Your task to perform on an android device: open app "AliExpress" (install if not already installed), go to login, and select forgot password Image 0: 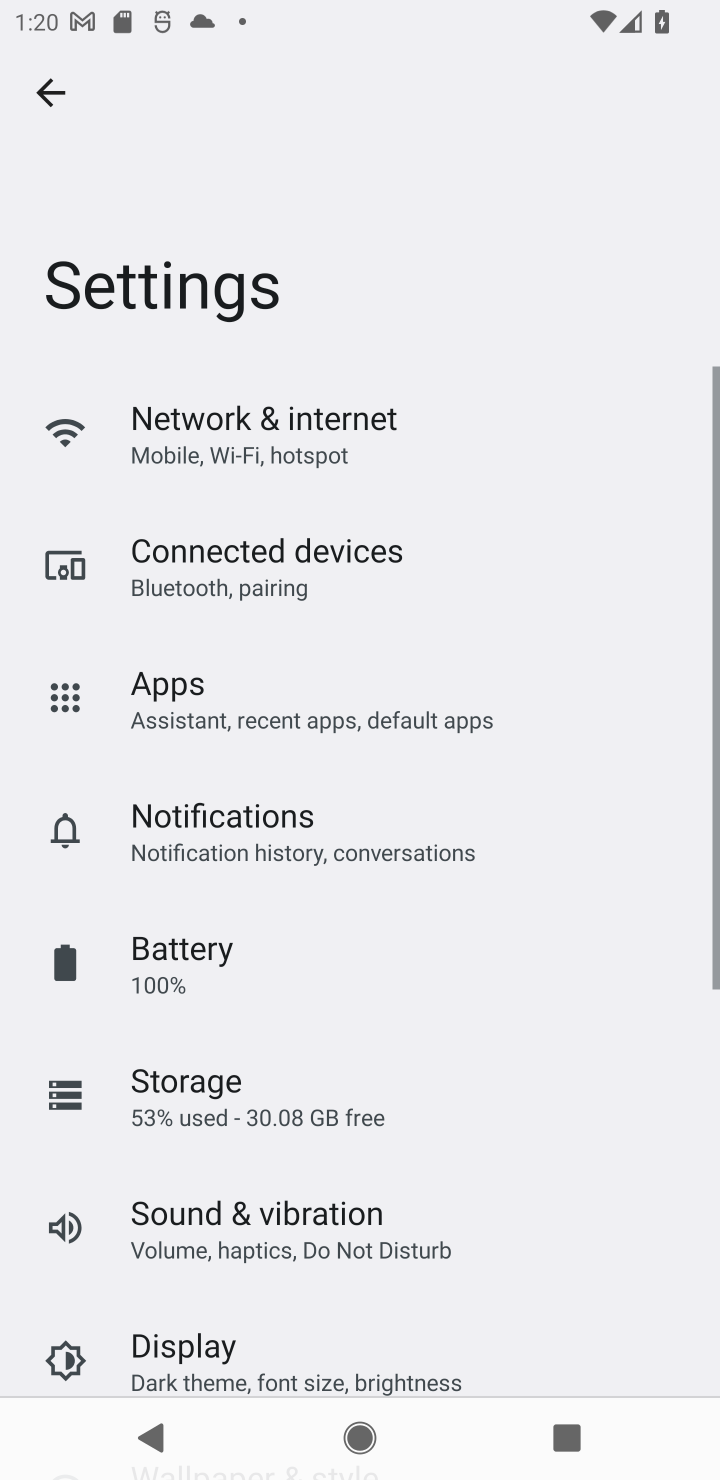
Step 0: press home button
Your task to perform on an android device: open app "AliExpress" (install if not already installed), go to login, and select forgot password Image 1: 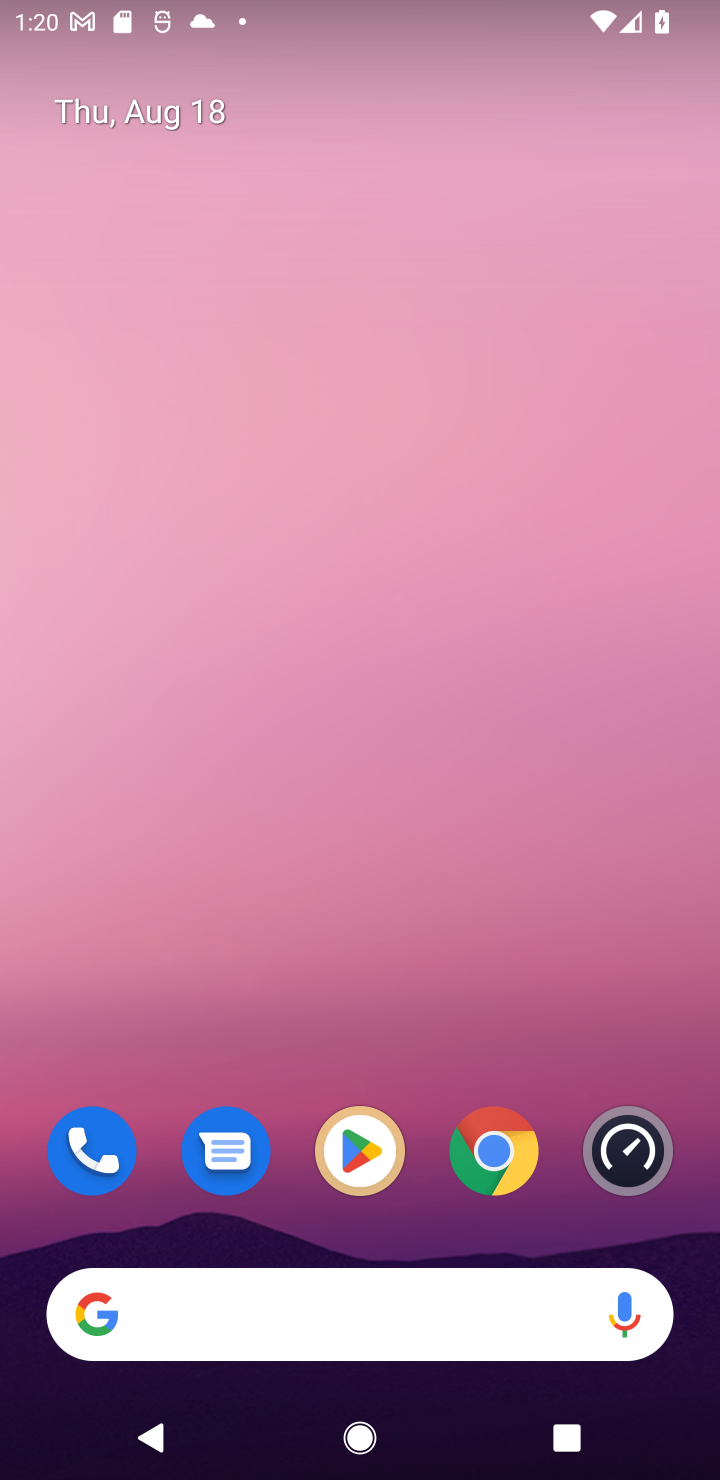
Step 1: drag from (343, 1179) to (337, 473)
Your task to perform on an android device: open app "AliExpress" (install if not already installed), go to login, and select forgot password Image 2: 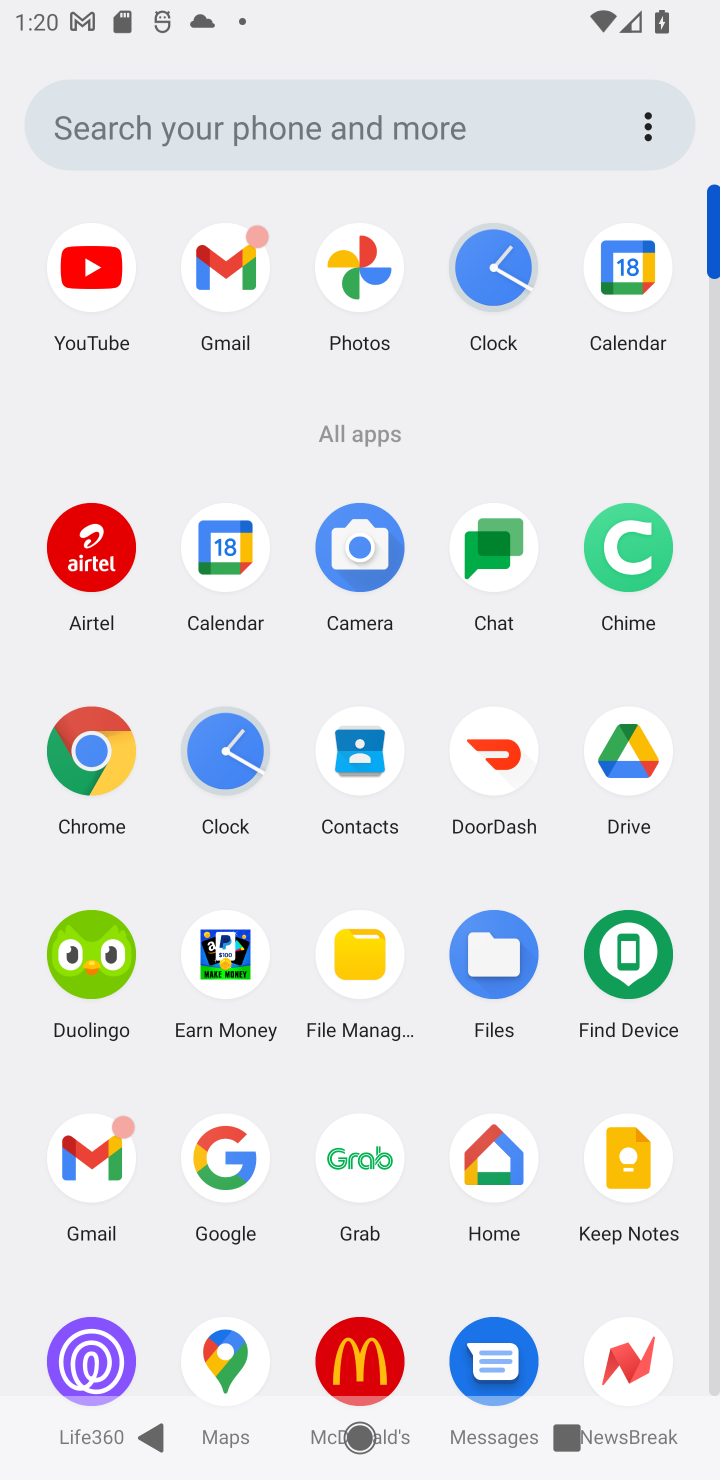
Step 2: drag from (405, 1136) to (376, 618)
Your task to perform on an android device: open app "AliExpress" (install if not already installed), go to login, and select forgot password Image 3: 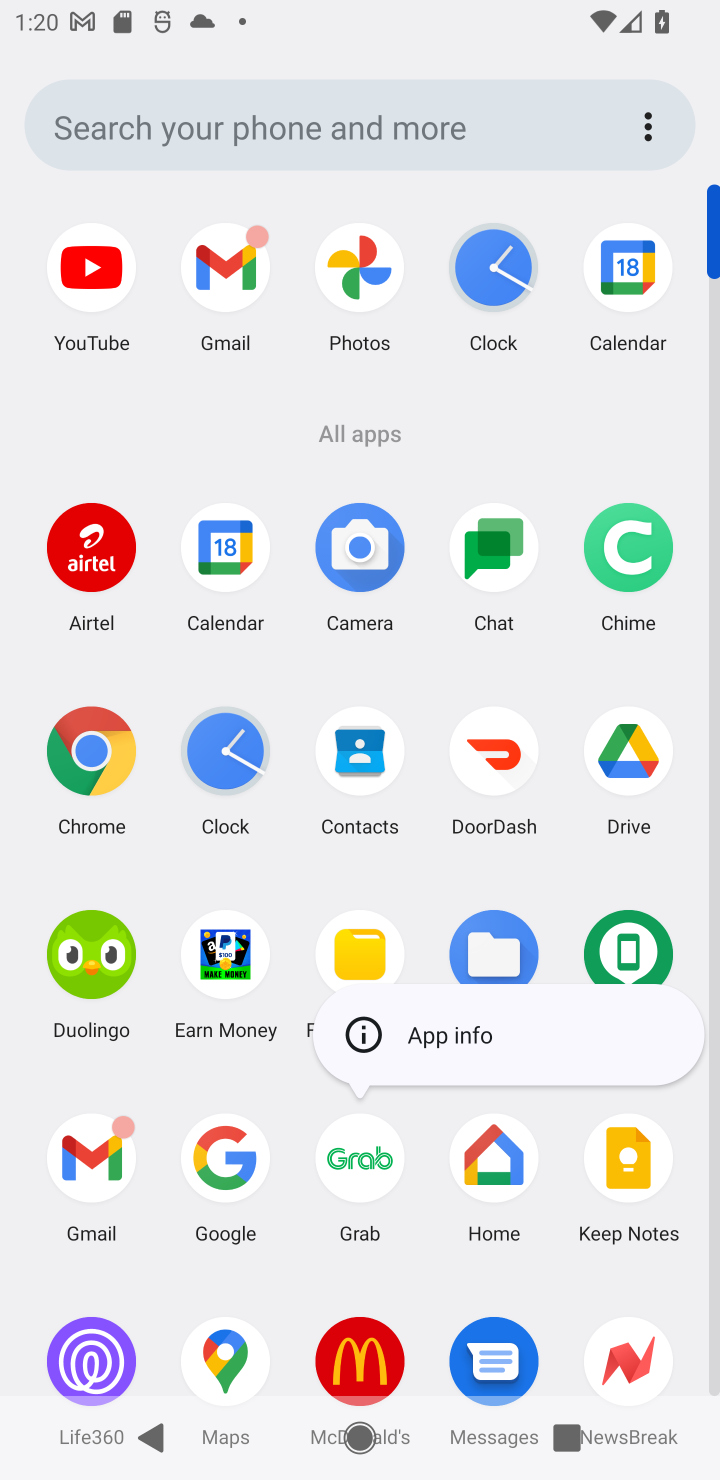
Step 3: drag from (393, 1161) to (329, 640)
Your task to perform on an android device: open app "AliExpress" (install if not already installed), go to login, and select forgot password Image 4: 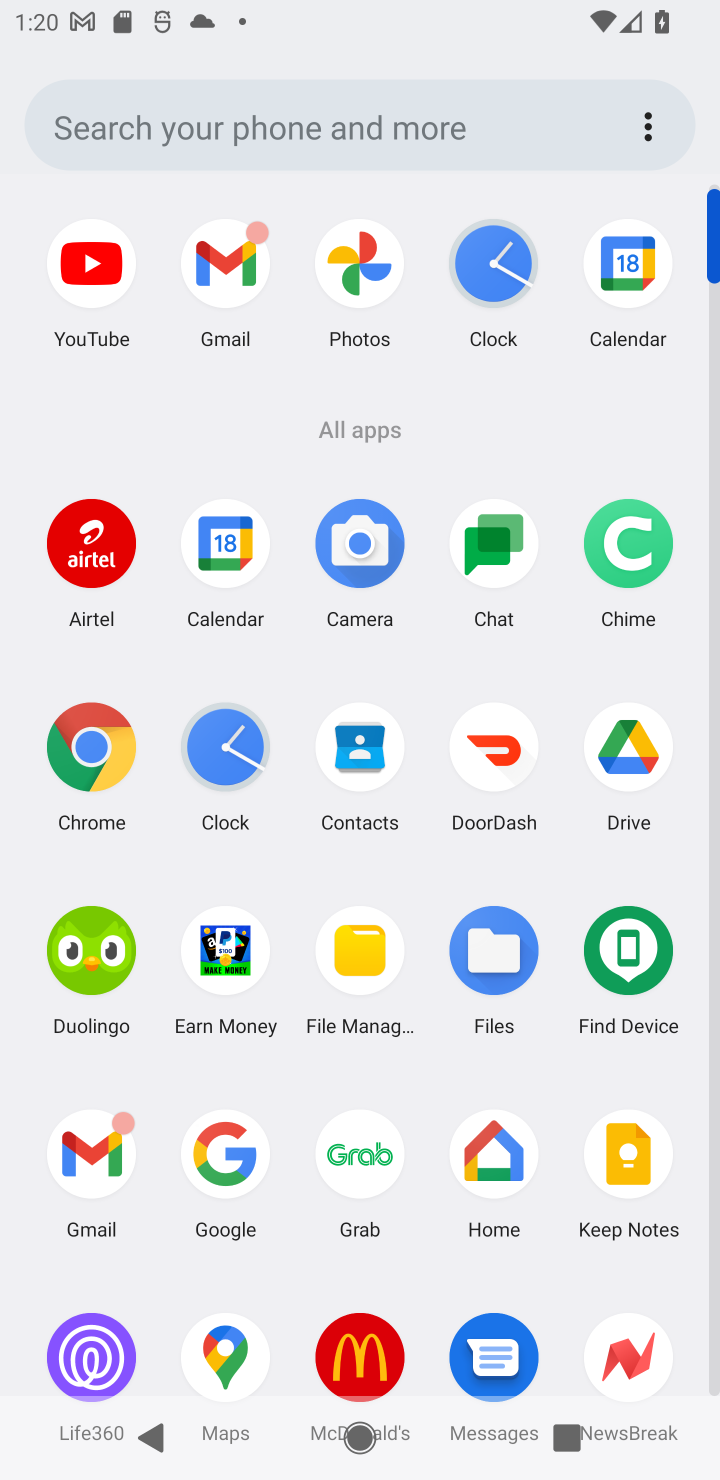
Step 4: press back button
Your task to perform on an android device: open app "AliExpress" (install if not already installed), go to login, and select forgot password Image 5: 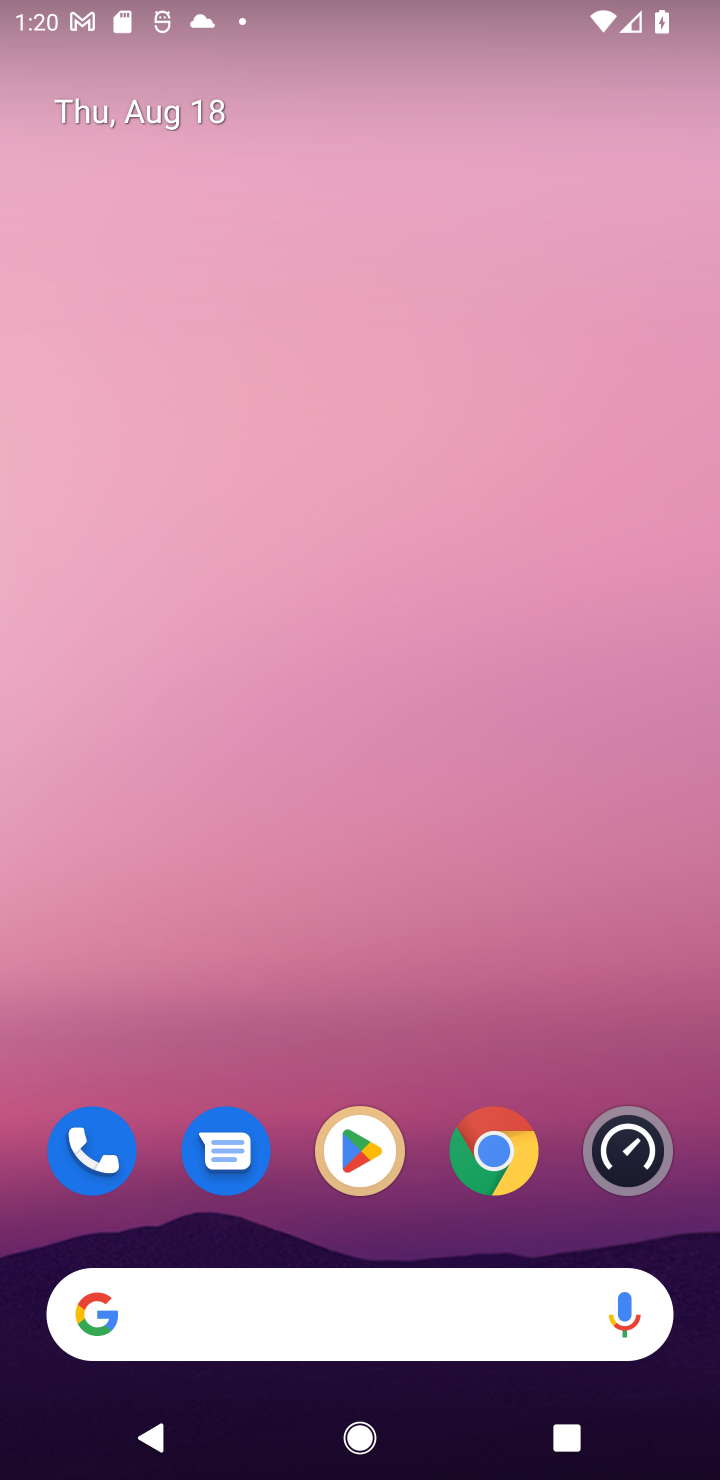
Step 5: click (346, 1165)
Your task to perform on an android device: open app "AliExpress" (install if not already installed), go to login, and select forgot password Image 6: 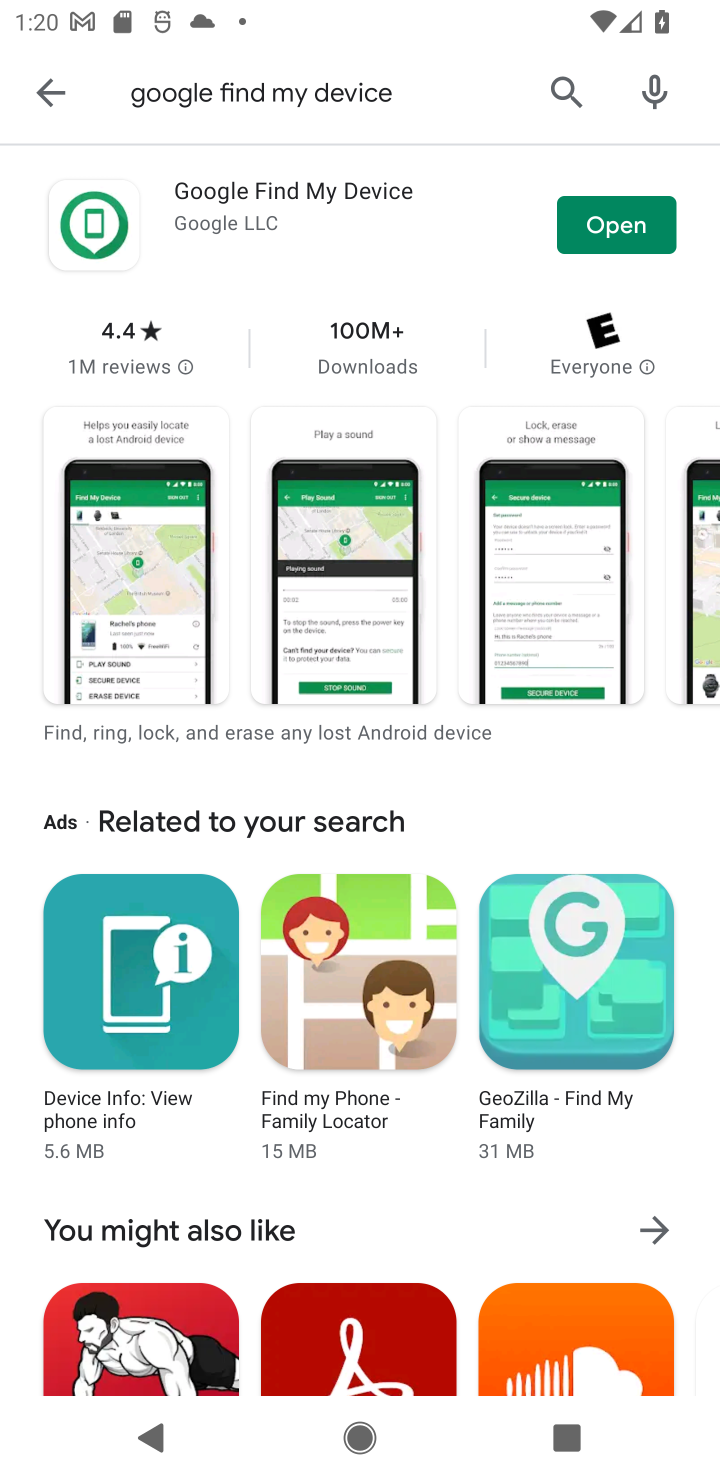
Step 6: click (45, 87)
Your task to perform on an android device: open app "AliExpress" (install if not already installed), go to login, and select forgot password Image 7: 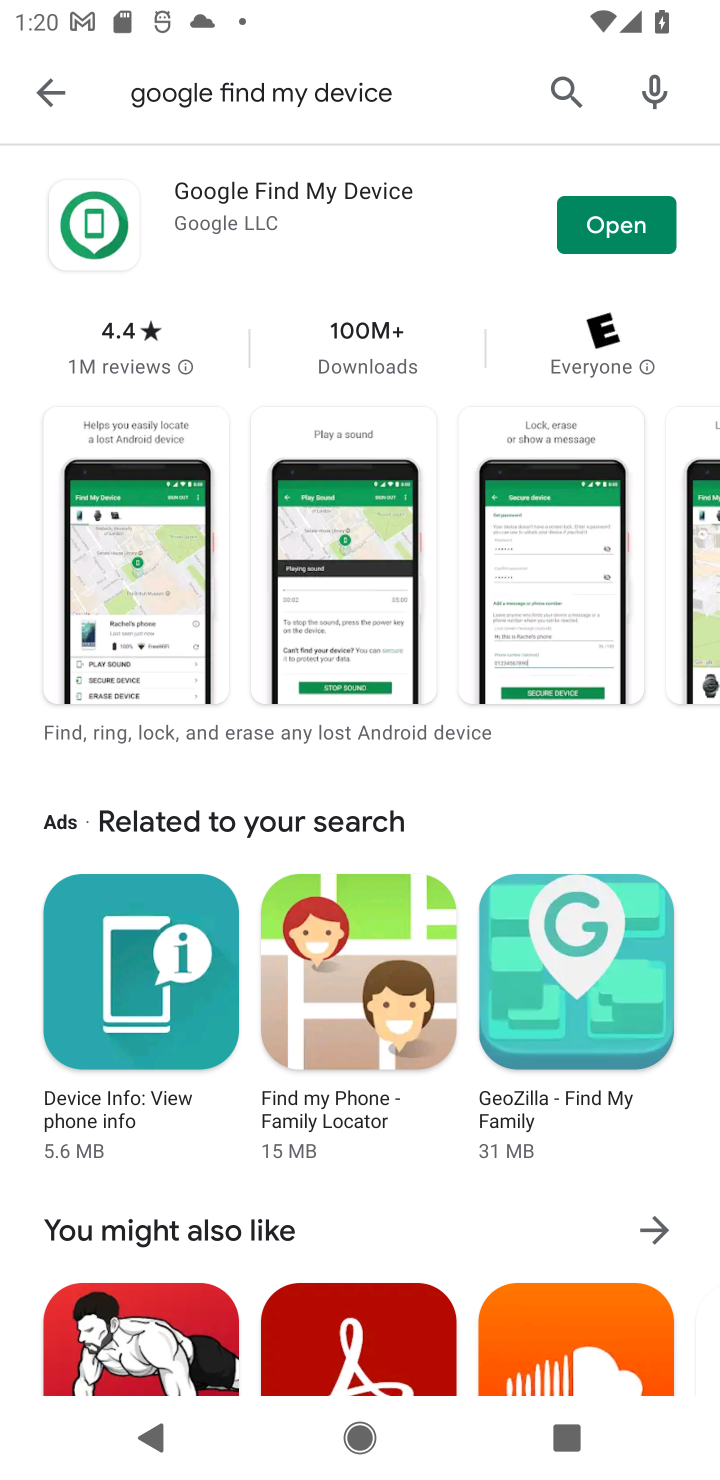
Step 7: click (52, 88)
Your task to perform on an android device: open app "AliExpress" (install if not already installed), go to login, and select forgot password Image 8: 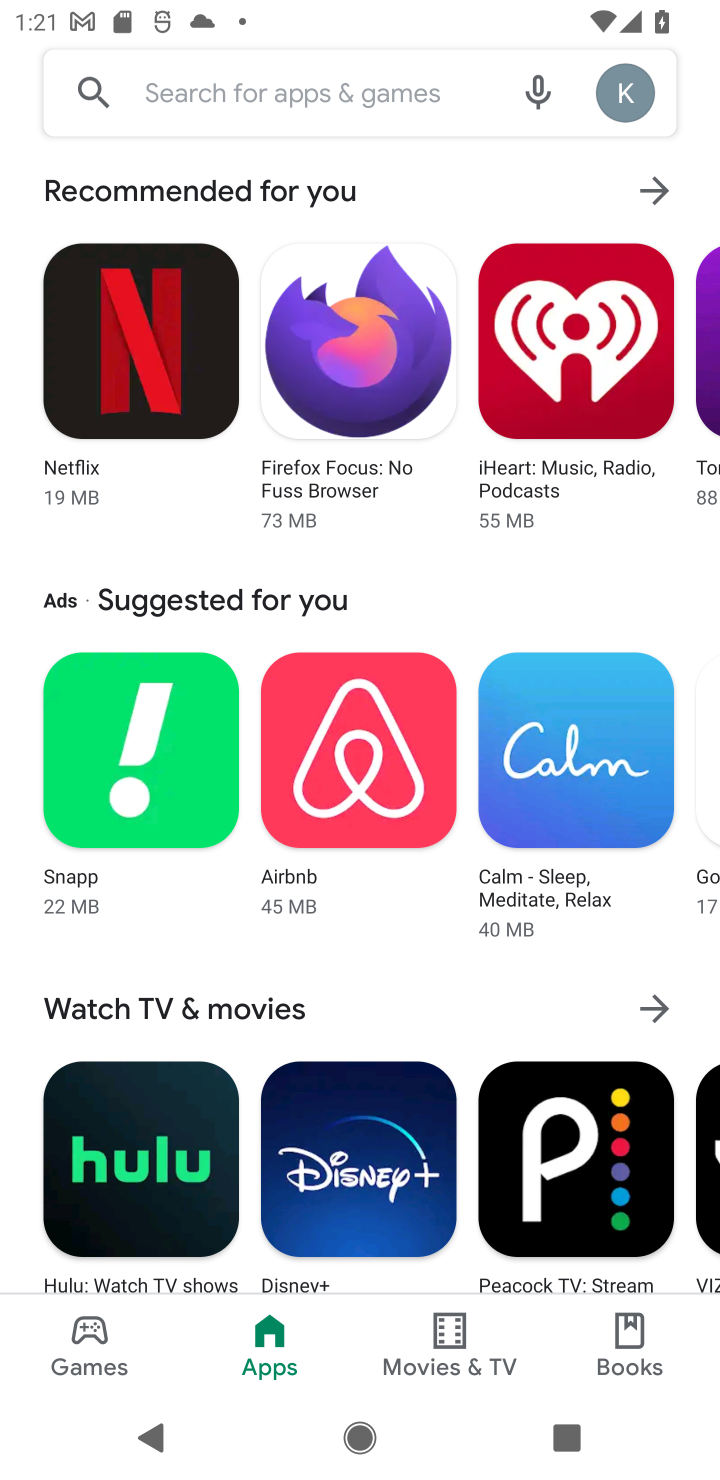
Step 8: click (239, 62)
Your task to perform on an android device: open app "AliExpress" (install if not already installed), go to login, and select forgot password Image 9: 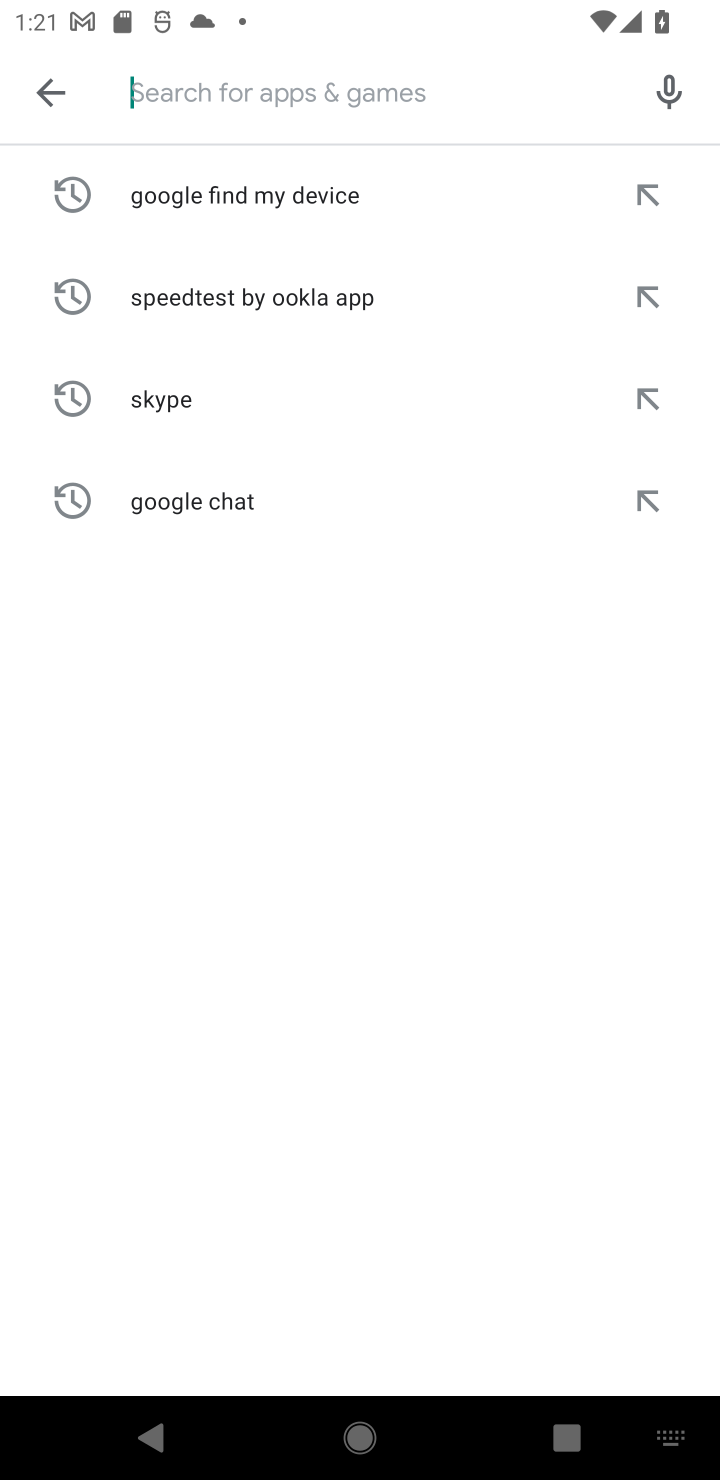
Step 9: type "aliexpress"
Your task to perform on an android device: open app "AliExpress" (install if not already installed), go to login, and select forgot password Image 10: 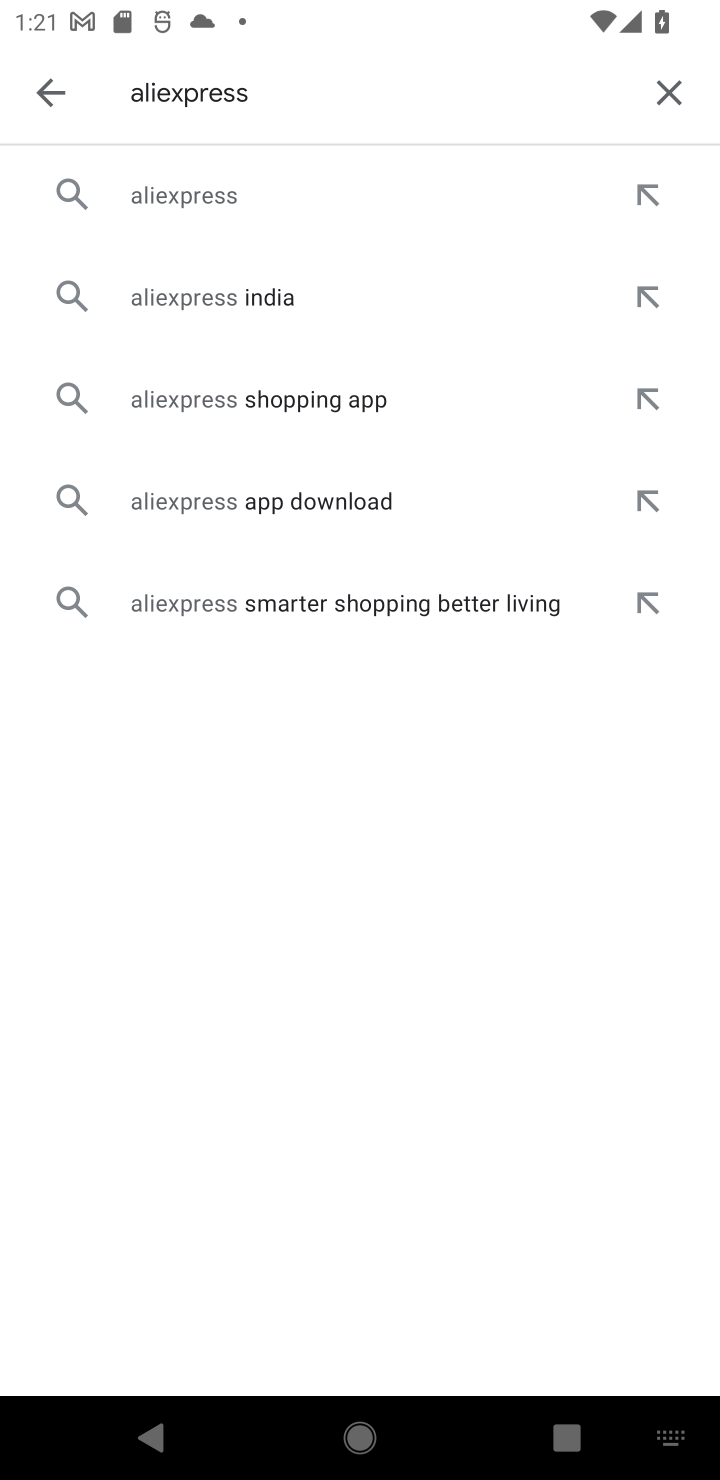
Step 10: click (201, 202)
Your task to perform on an android device: open app "AliExpress" (install if not already installed), go to login, and select forgot password Image 11: 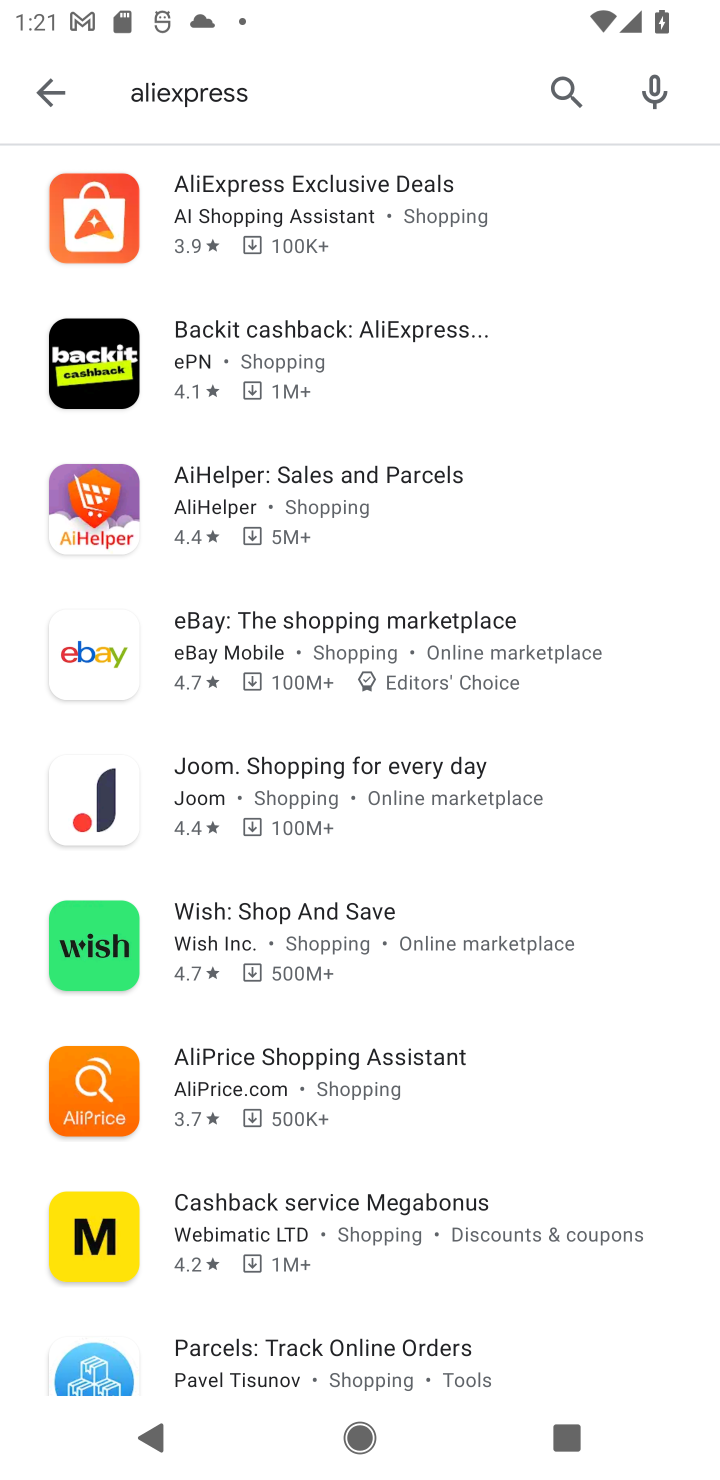
Step 11: click (215, 209)
Your task to perform on an android device: open app "AliExpress" (install if not already installed), go to login, and select forgot password Image 12: 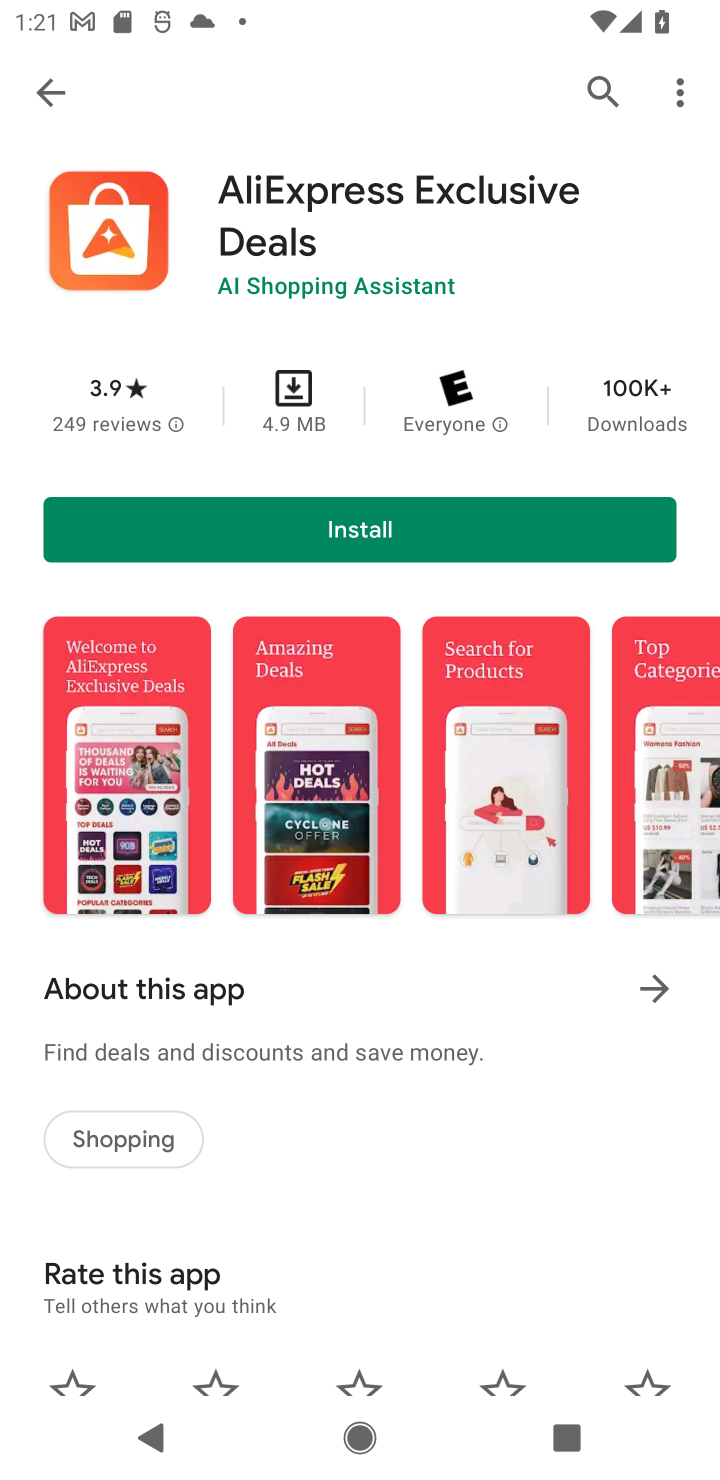
Step 12: click (396, 501)
Your task to perform on an android device: open app "AliExpress" (install if not already installed), go to login, and select forgot password Image 13: 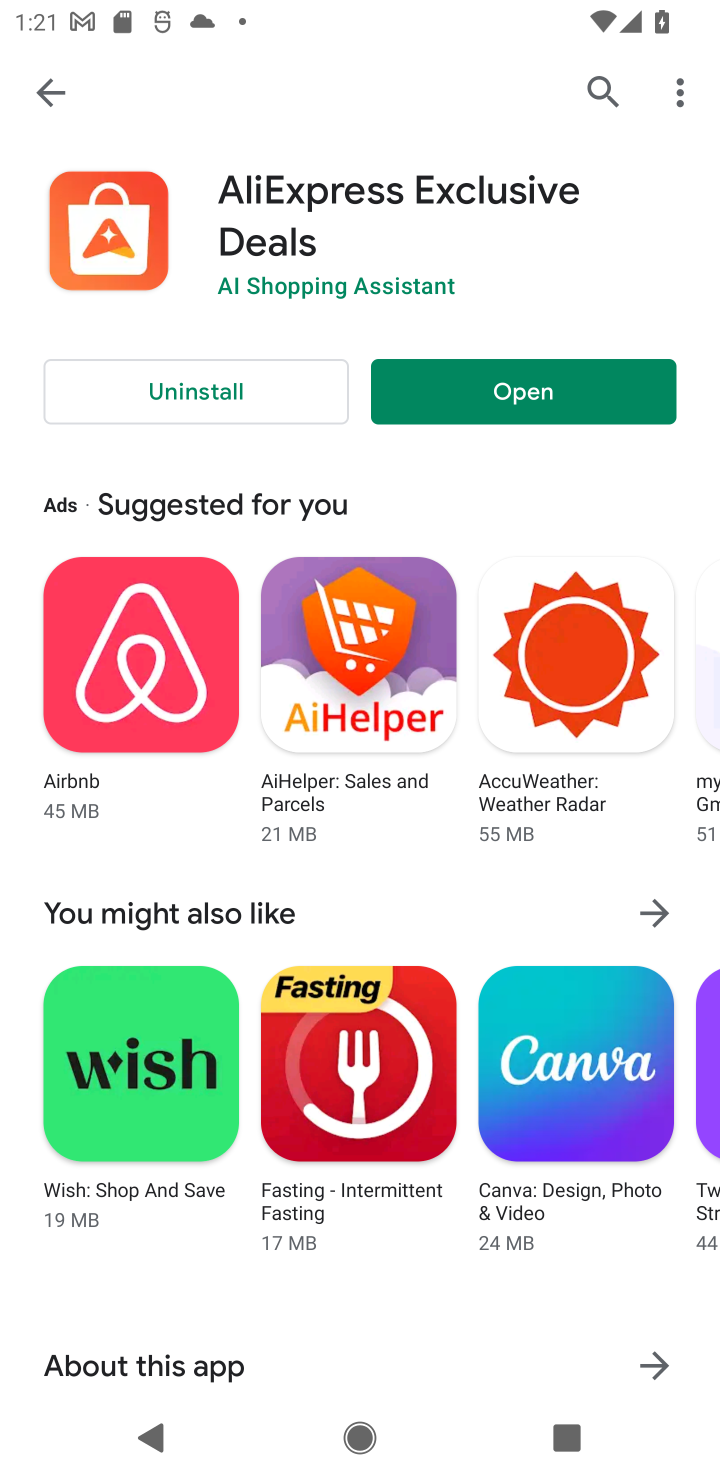
Step 13: click (495, 389)
Your task to perform on an android device: open app "AliExpress" (install if not already installed), go to login, and select forgot password Image 14: 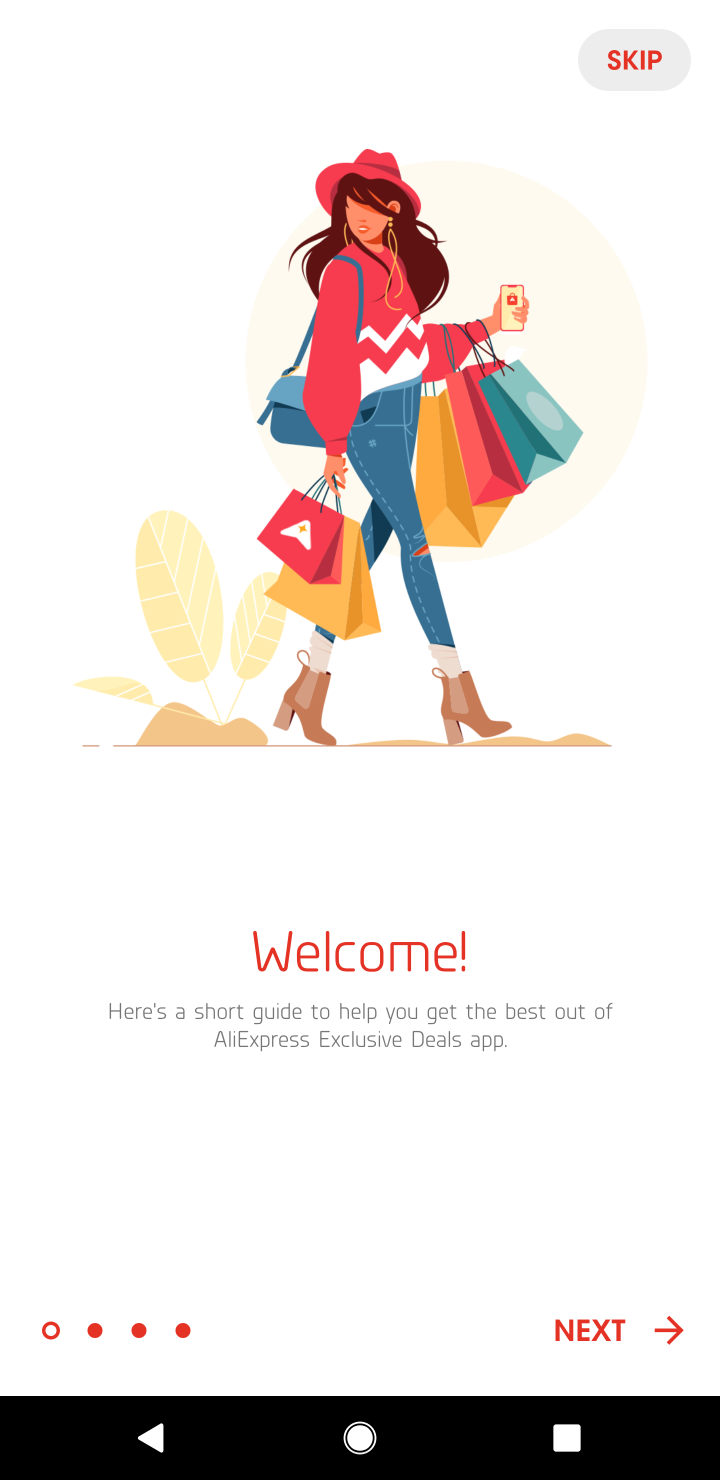
Step 14: task complete